Your task to perform on an android device: open app "Walmart Shopping & Grocery" (install if not already installed) and go to login screen Image 0: 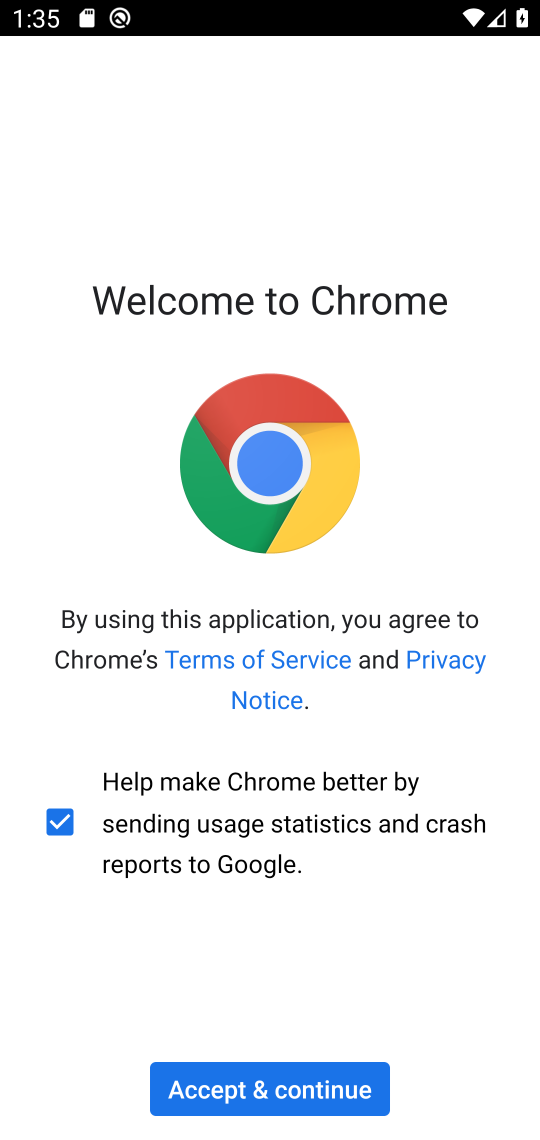
Step 0: press home button
Your task to perform on an android device: open app "Walmart Shopping & Grocery" (install if not already installed) and go to login screen Image 1: 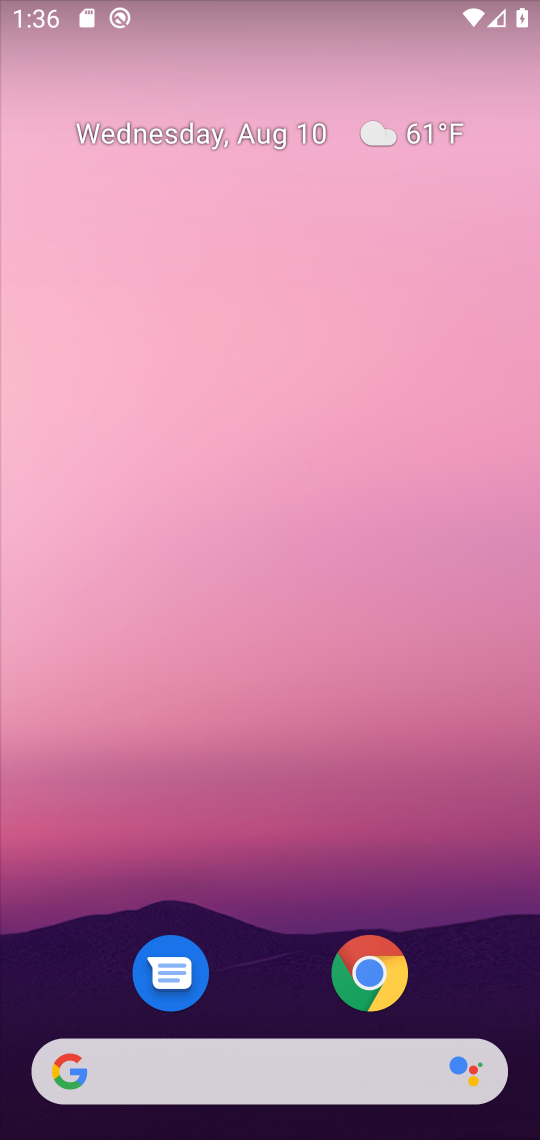
Step 1: drag from (208, 1006) to (247, 184)
Your task to perform on an android device: open app "Walmart Shopping & Grocery" (install if not already installed) and go to login screen Image 2: 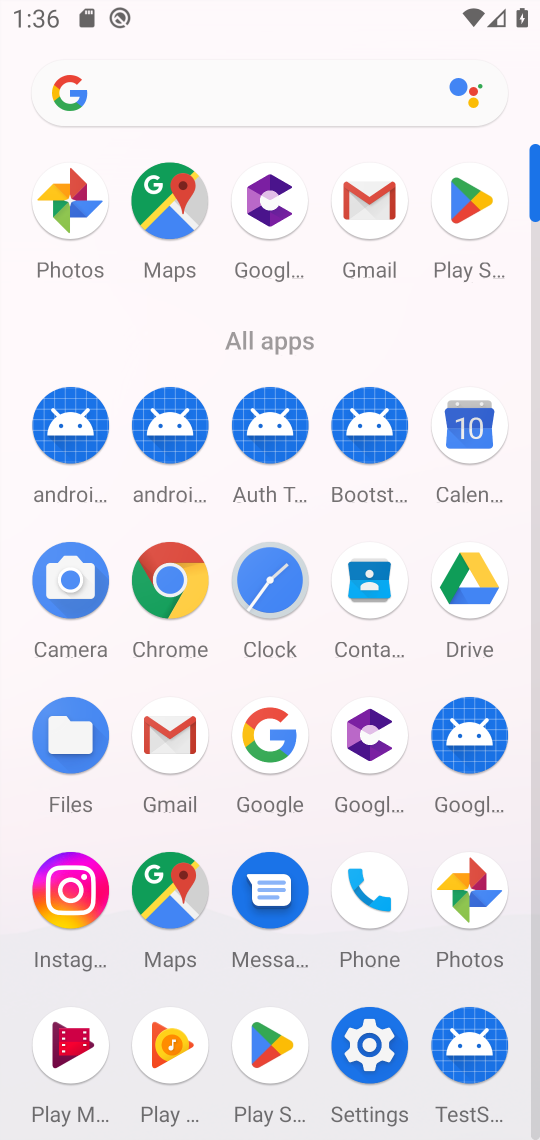
Step 2: click (468, 203)
Your task to perform on an android device: open app "Walmart Shopping & Grocery" (install if not already installed) and go to login screen Image 3: 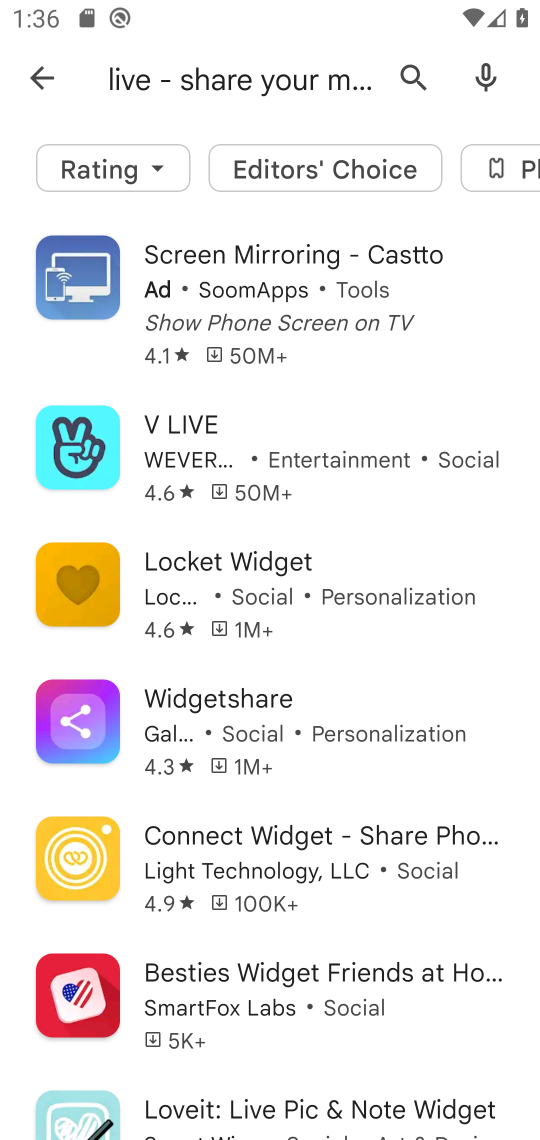
Step 3: click (43, 68)
Your task to perform on an android device: open app "Walmart Shopping & Grocery" (install if not already installed) and go to login screen Image 4: 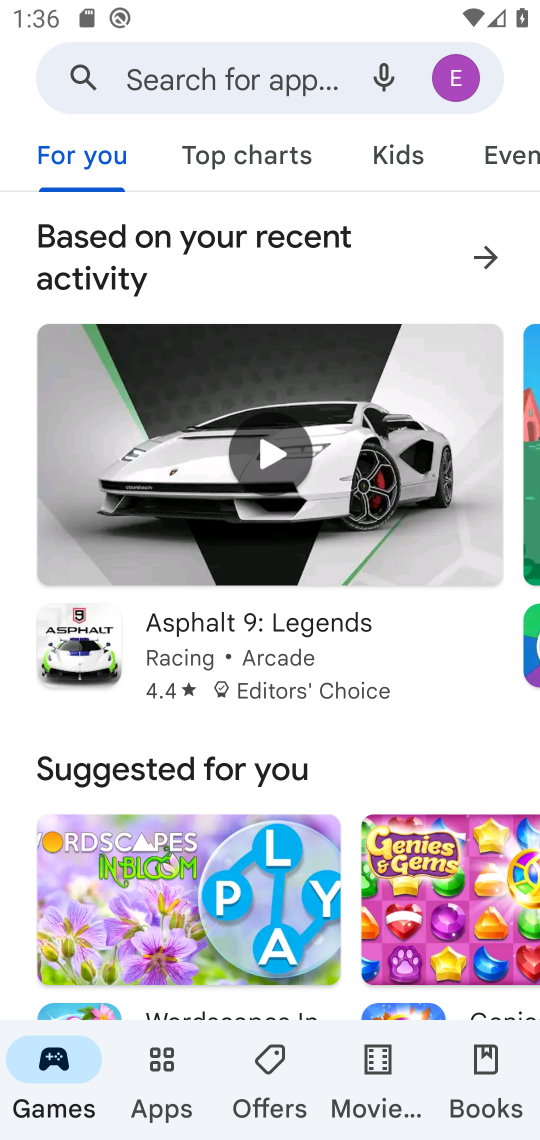
Step 4: click (176, 71)
Your task to perform on an android device: open app "Walmart Shopping & Grocery" (install if not already installed) and go to login screen Image 5: 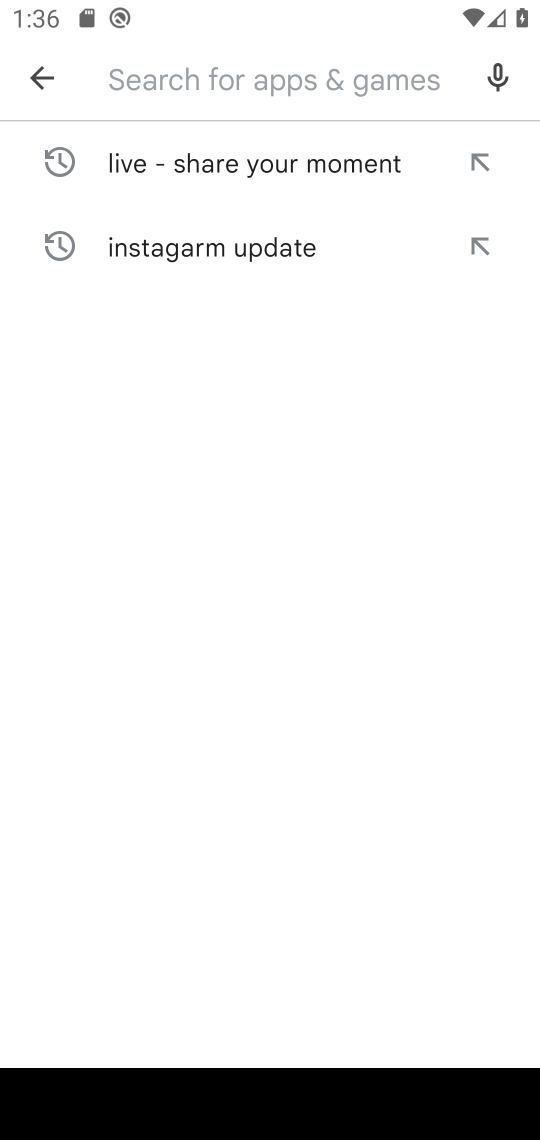
Step 5: type "walmart "
Your task to perform on an android device: open app "Walmart Shopping & Grocery" (install if not already installed) and go to login screen Image 6: 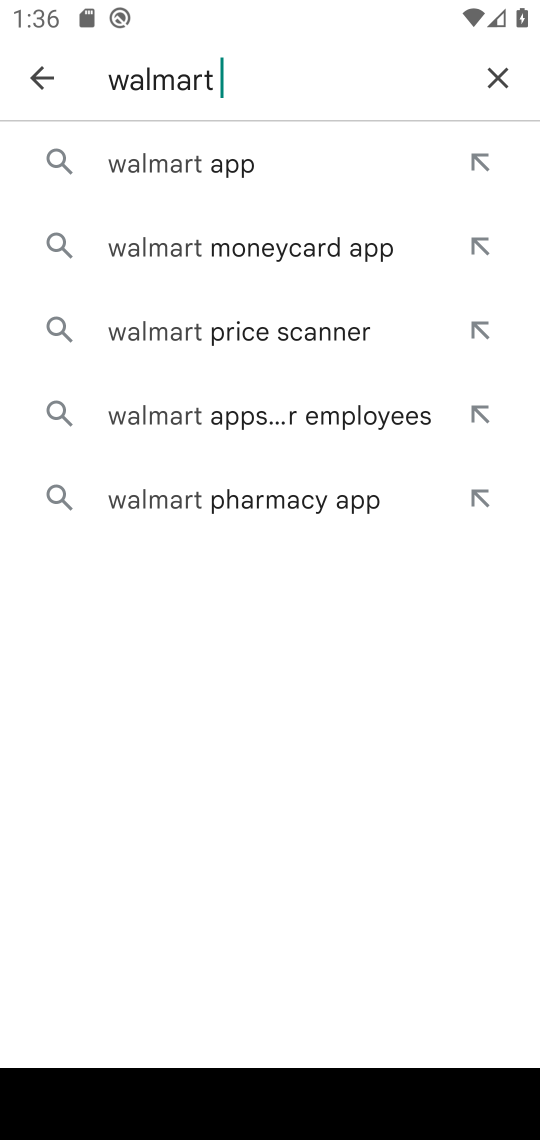
Step 6: click (243, 179)
Your task to perform on an android device: open app "Walmart Shopping & Grocery" (install if not already installed) and go to login screen Image 7: 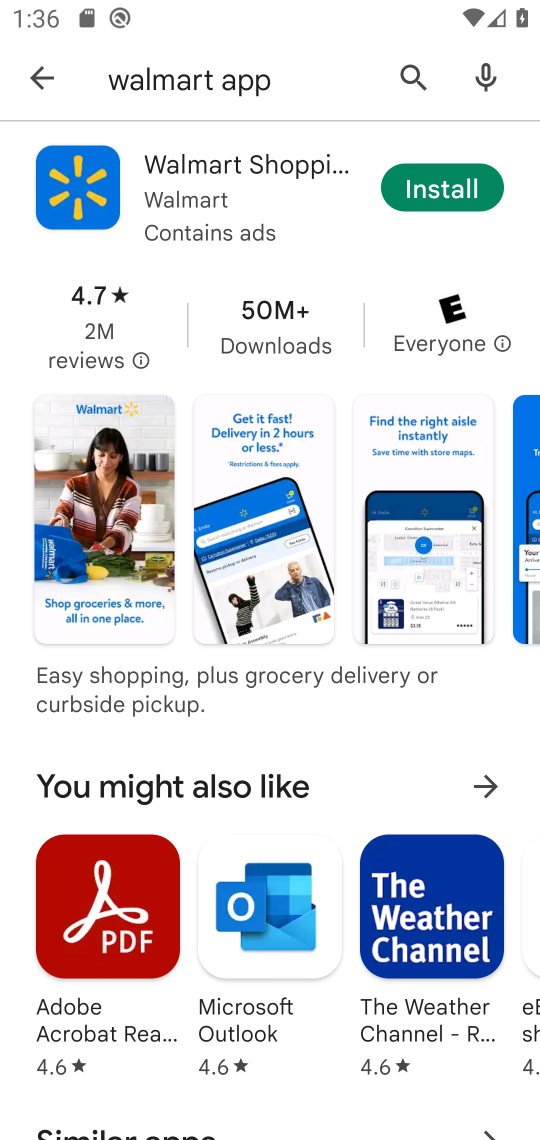
Step 7: click (425, 167)
Your task to perform on an android device: open app "Walmart Shopping & Grocery" (install if not already installed) and go to login screen Image 8: 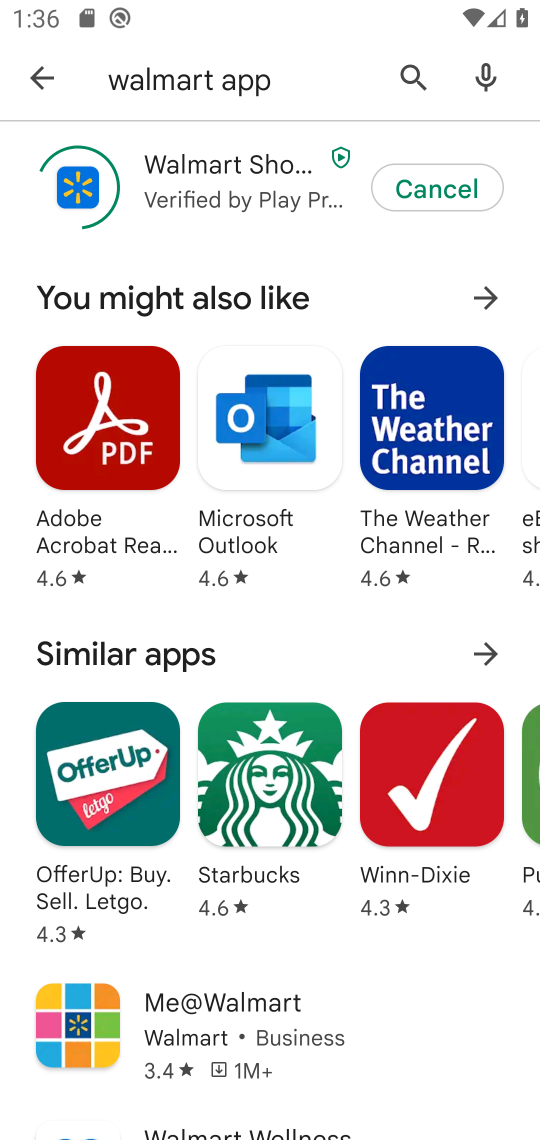
Step 8: click (164, 188)
Your task to perform on an android device: open app "Walmart Shopping & Grocery" (install if not already installed) and go to login screen Image 9: 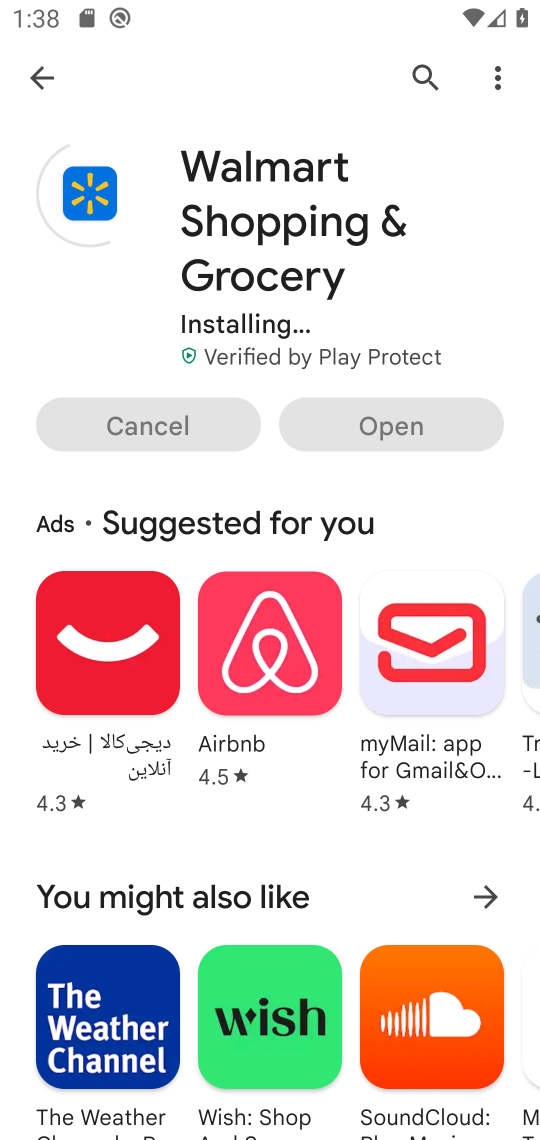
Step 9: task complete